Your task to perform on an android device: Open privacy settings Image 0: 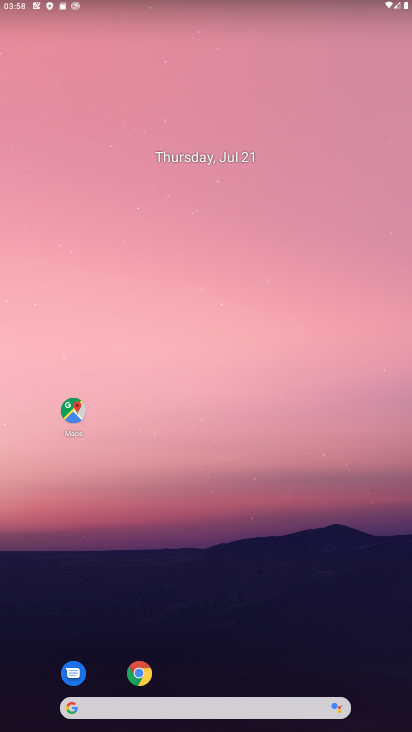
Step 0: drag from (326, 632) to (275, 54)
Your task to perform on an android device: Open privacy settings Image 1: 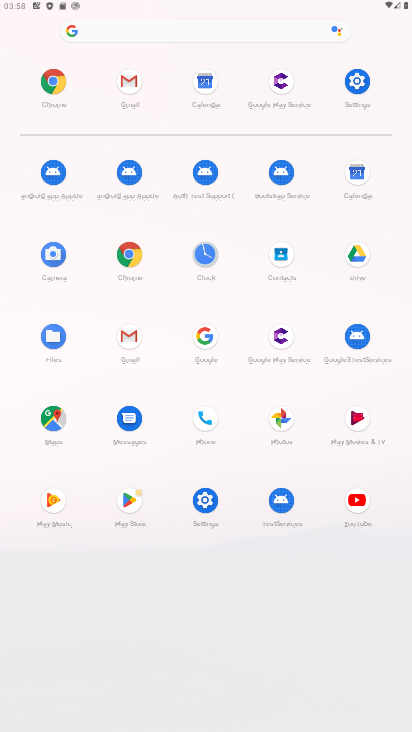
Step 1: click (212, 491)
Your task to perform on an android device: Open privacy settings Image 2: 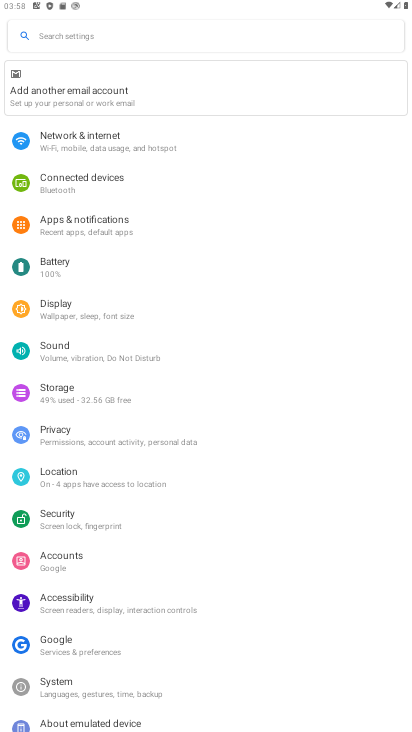
Step 2: click (134, 439)
Your task to perform on an android device: Open privacy settings Image 3: 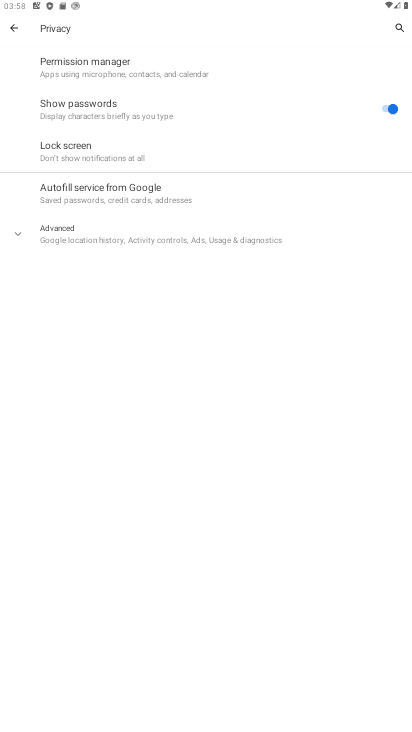
Step 3: task complete